Your task to perform on an android device: turn pop-ups off in chrome Image 0: 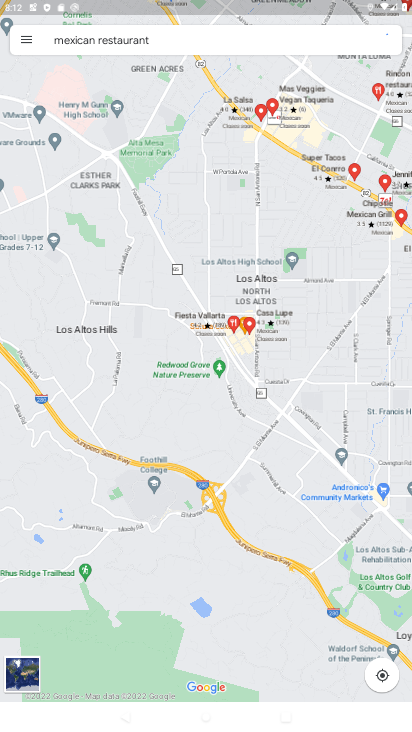
Step 0: click (195, 441)
Your task to perform on an android device: turn pop-ups off in chrome Image 1: 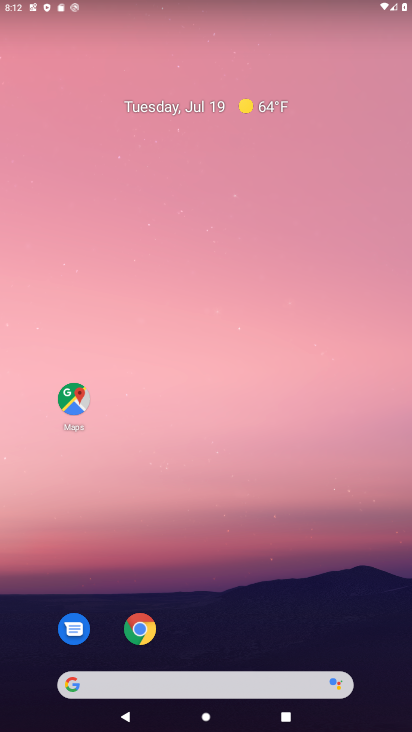
Step 1: drag from (219, 591) to (280, 350)
Your task to perform on an android device: turn pop-ups off in chrome Image 2: 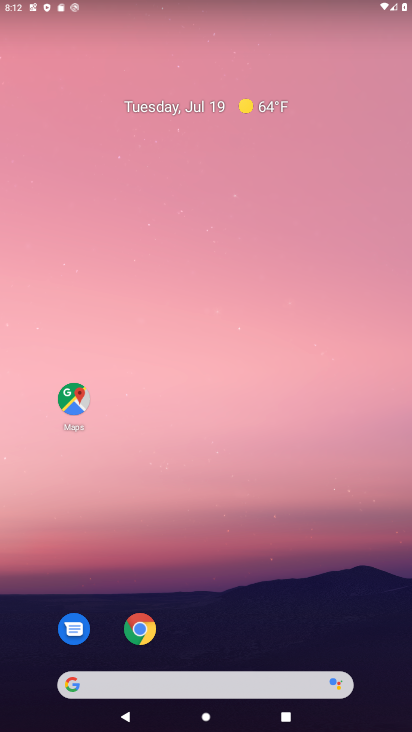
Step 2: drag from (239, 568) to (253, 13)
Your task to perform on an android device: turn pop-ups off in chrome Image 3: 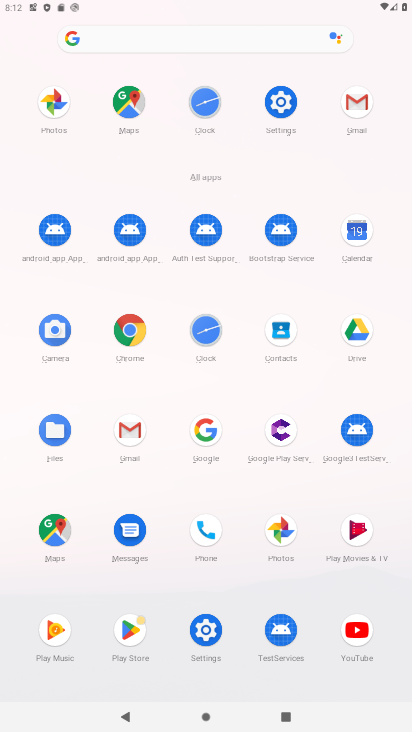
Step 3: click (132, 324)
Your task to perform on an android device: turn pop-ups off in chrome Image 4: 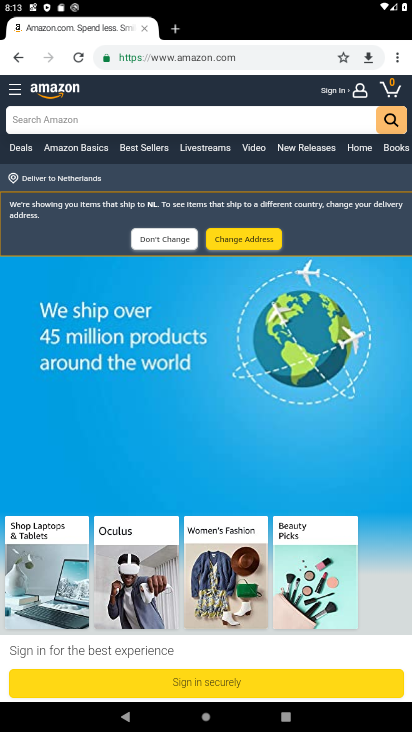
Step 4: click (401, 50)
Your task to perform on an android device: turn pop-ups off in chrome Image 5: 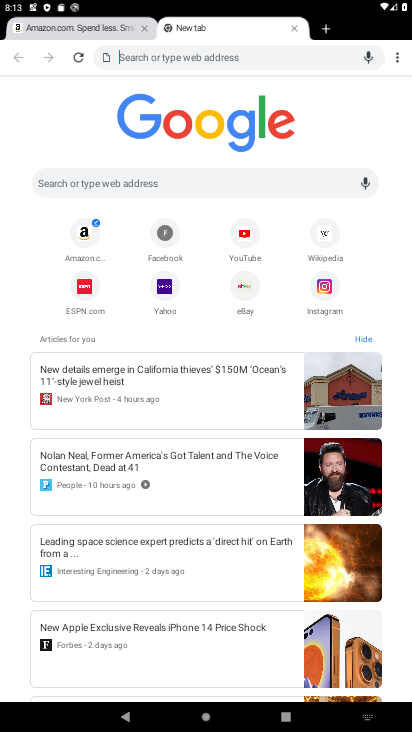
Step 5: drag from (393, 49) to (281, 260)
Your task to perform on an android device: turn pop-ups off in chrome Image 6: 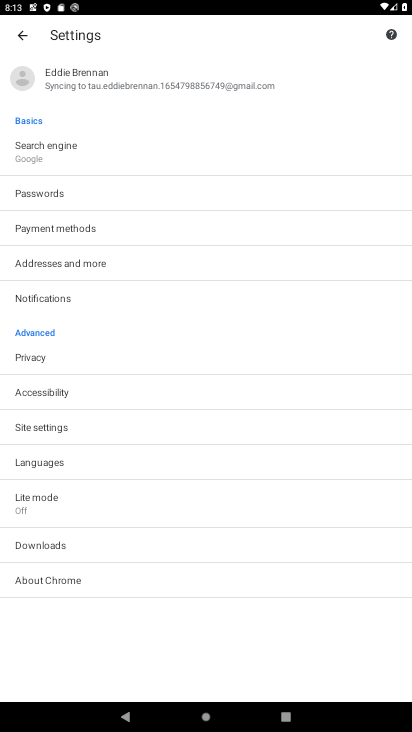
Step 6: click (80, 433)
Your task to perform on an android device: turn pop-ups off in chrome Image 7: 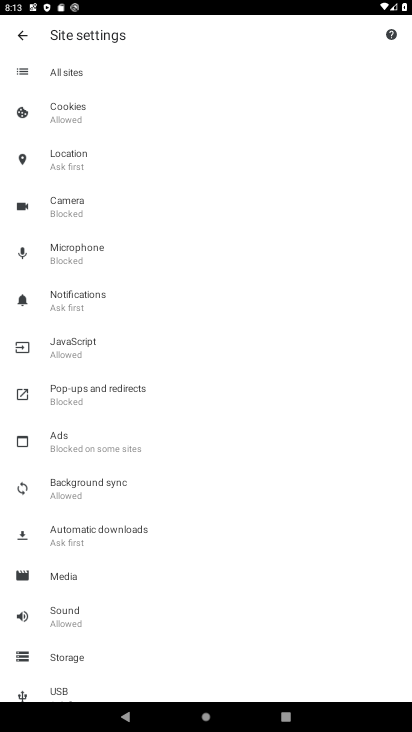
Step 7: drag from (211, 539) to (225, 366)
Your task to perform on an android device: turn pop-ups off in chrome Image 8: 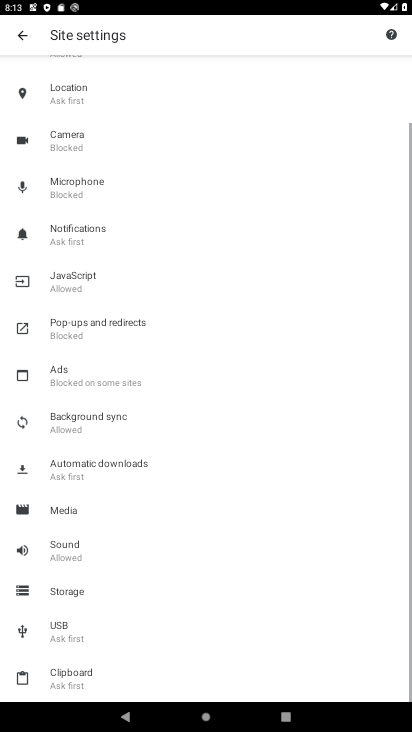
Step 8: drag from (236, 551) to (232, 362)
Your task to perform on an android device: turn pop-ups off in chrome Image 9: 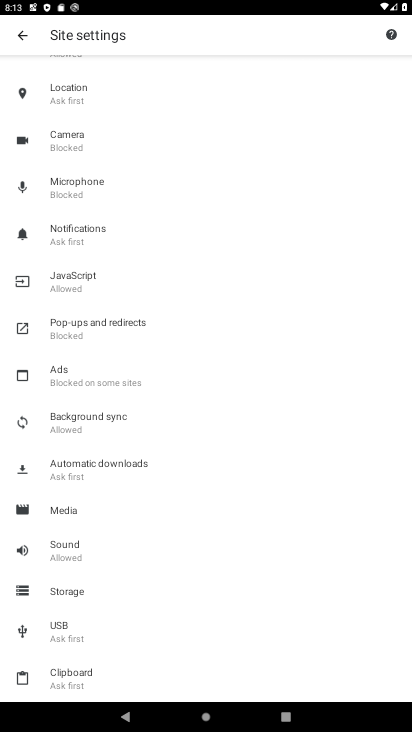
Step 9: click (116, 336)
Your task to perform on an android device: turn pop-ups off in chrome Image 10: 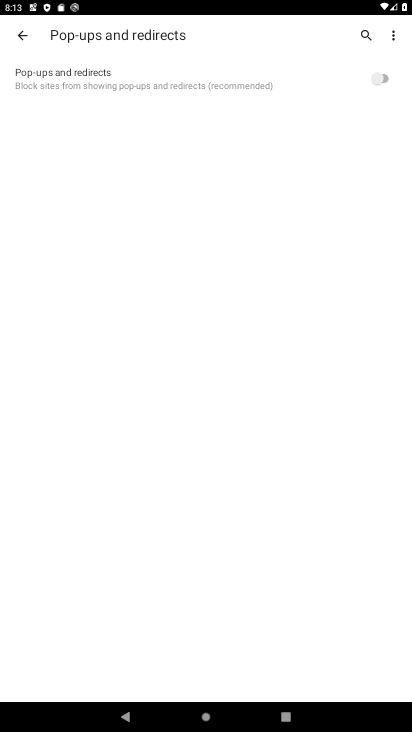
Step 10: task complete